Your task to perform on an android device: What's on my calendar today? Image 0: 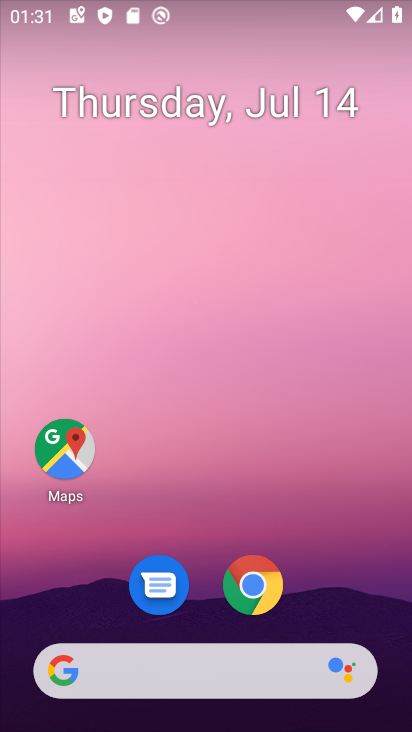
Step 0: drag from (332, 548) to (367, 57)
Your task to perform on an android device: What's on my calendar today? Image 1: 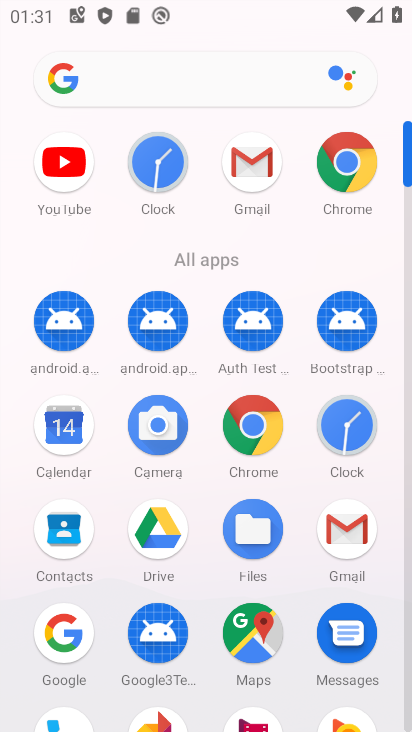
Step 1: click (66, 435)
Your task to perform on an android device: What's on my calendar today? Image 2: 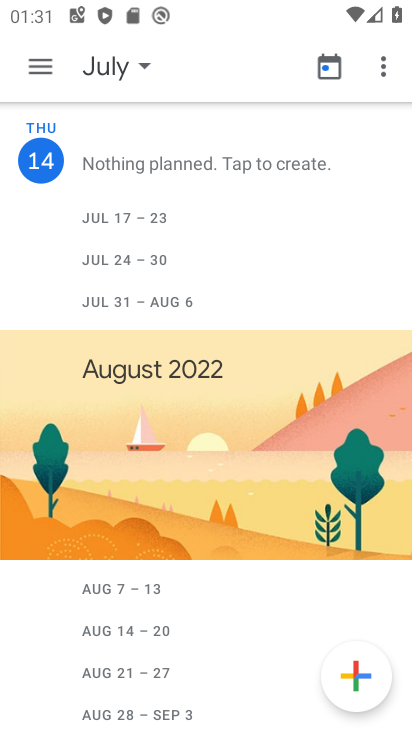
Step 2: task complete